Your task to perform on an android device: turn off smart reply in the gmail app Image 0: 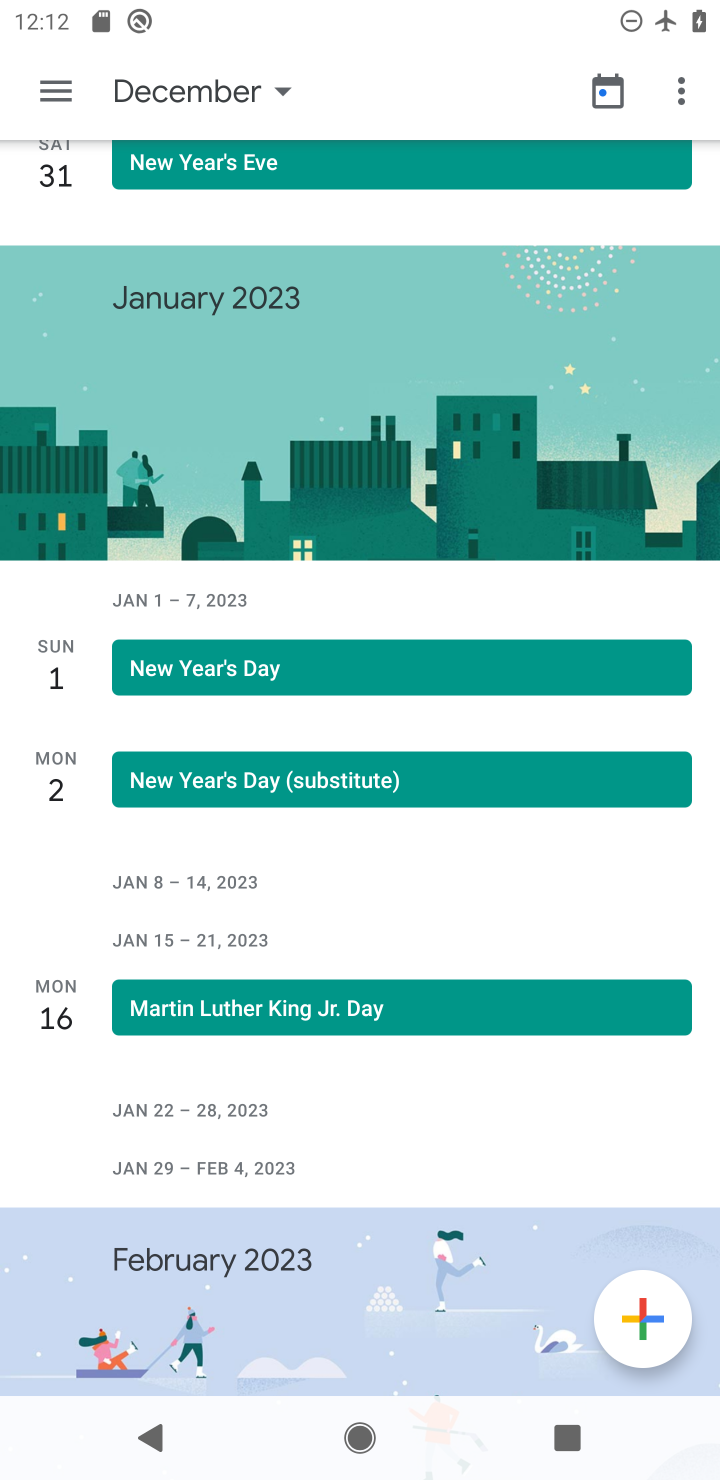
Step 0: press home button
Your task to perform on an android device: turn off smart reply in the gmail app Image 1: 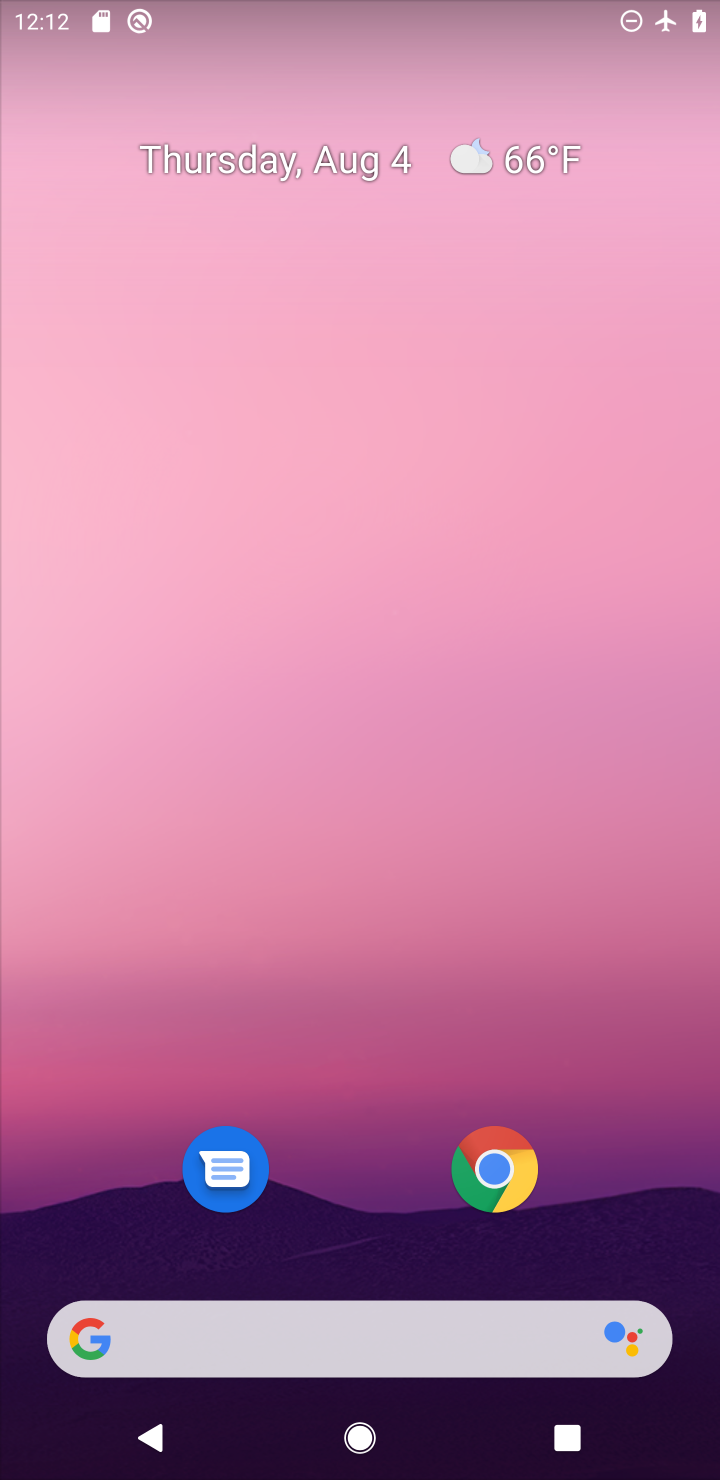
Step 1: drag from (377, 1245) to (308, 19)
Your task to perform on an android device: turn off smart reply in the gmail app Image 2: 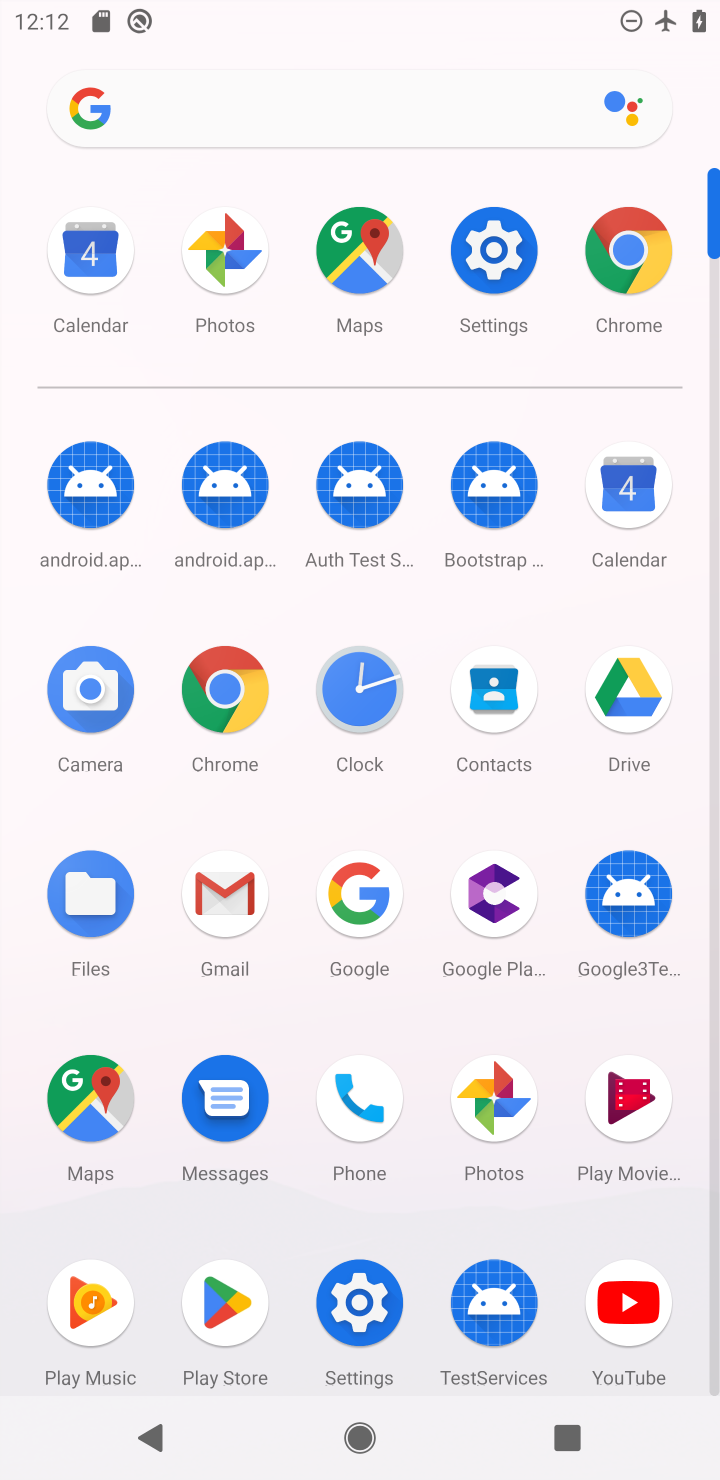
Step 2: click (222, 912)
Your task to perform on an android device: turn off smart reply in the gmail app Image 3: 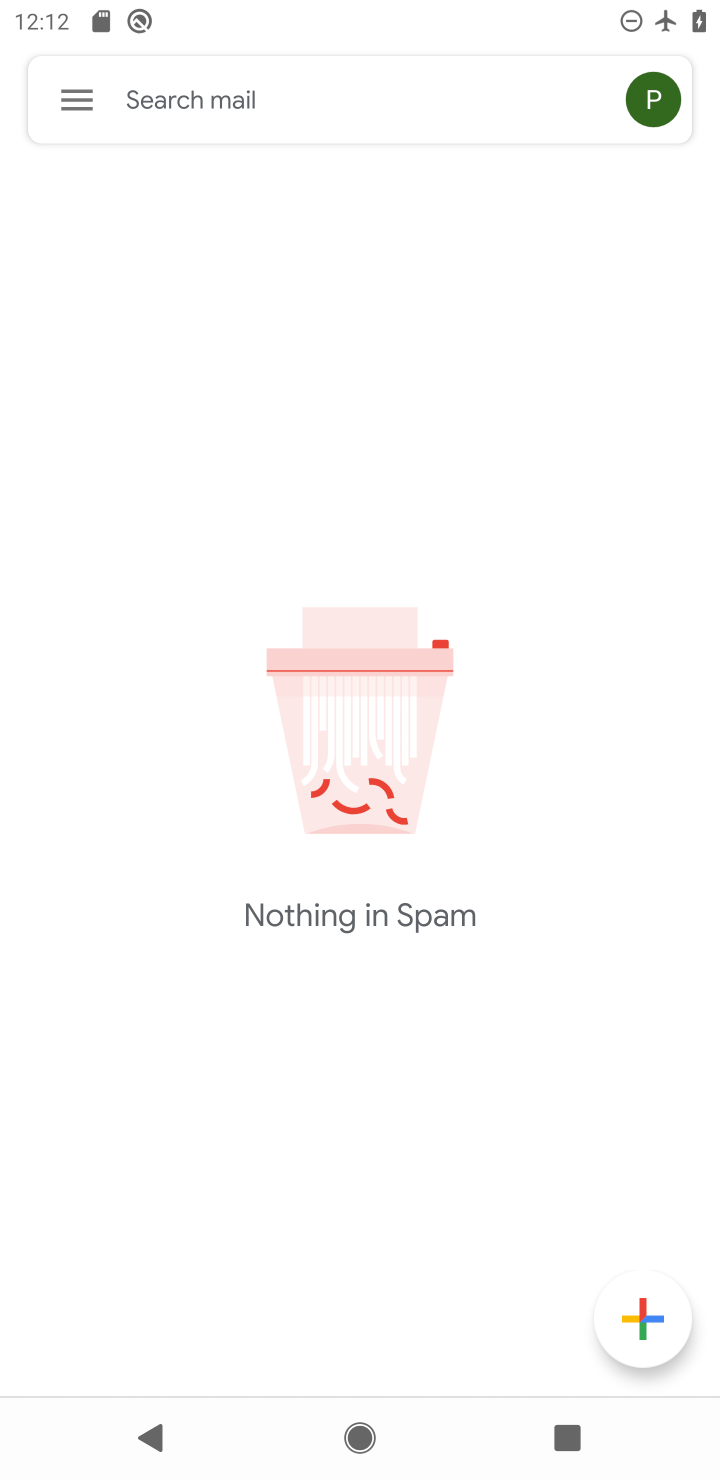
Step 3: click (86, 97)
Your task to perform on an android device: turn off smart reply in the gmail app Image 4: 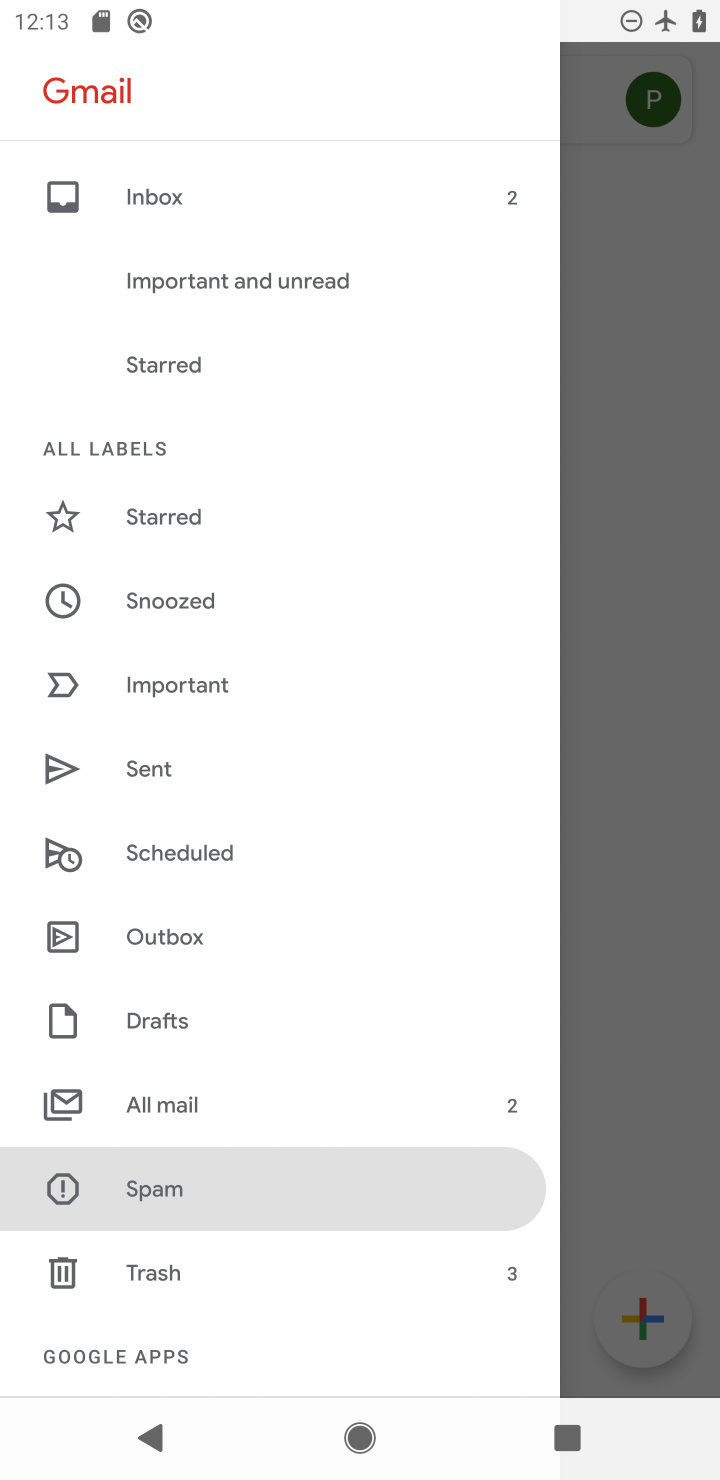
Step 4: drag from (261, 1086) to (263, 453)
Your task to perform on an android device: turn off smart reply in the gmail app Image 5: 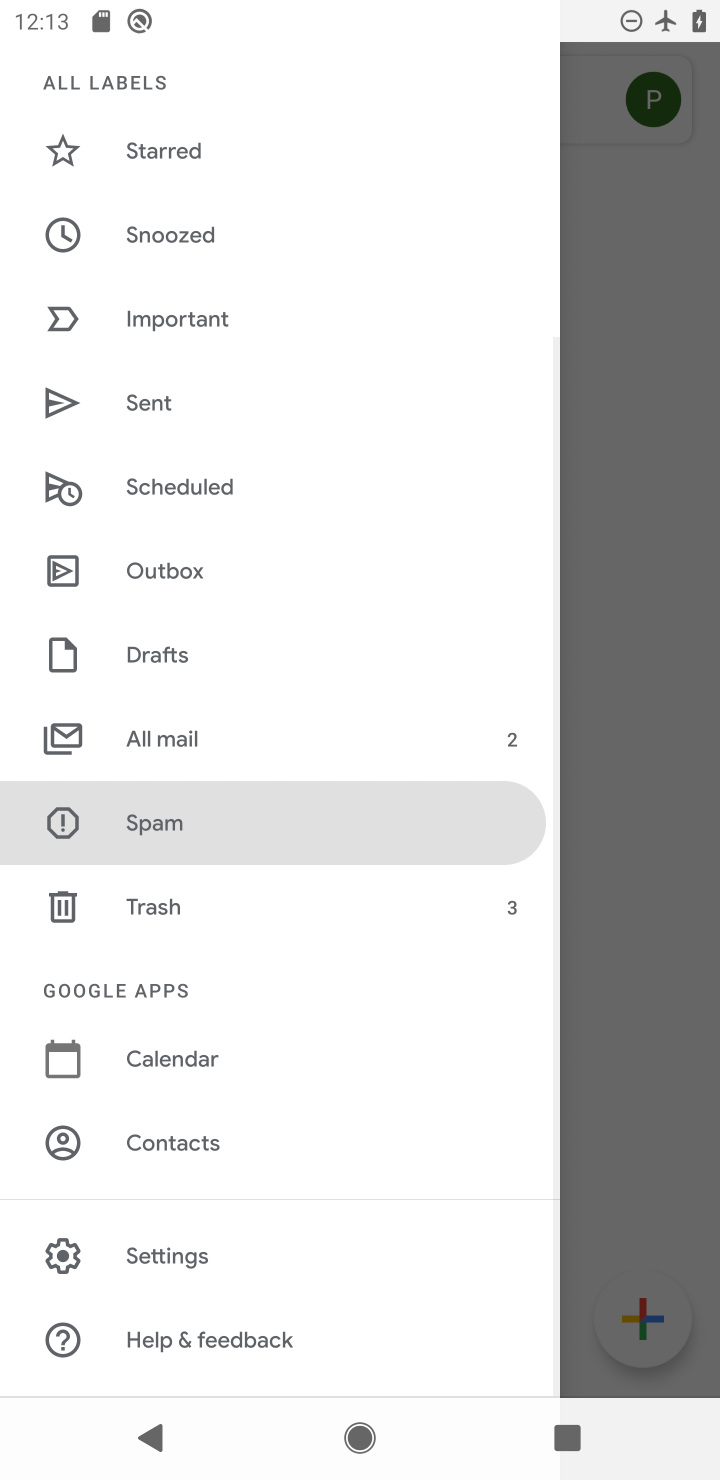
Step 5: click (156, 1259)
Your task to perform on an android device: turn off smart reply in the gmail app Image 6: 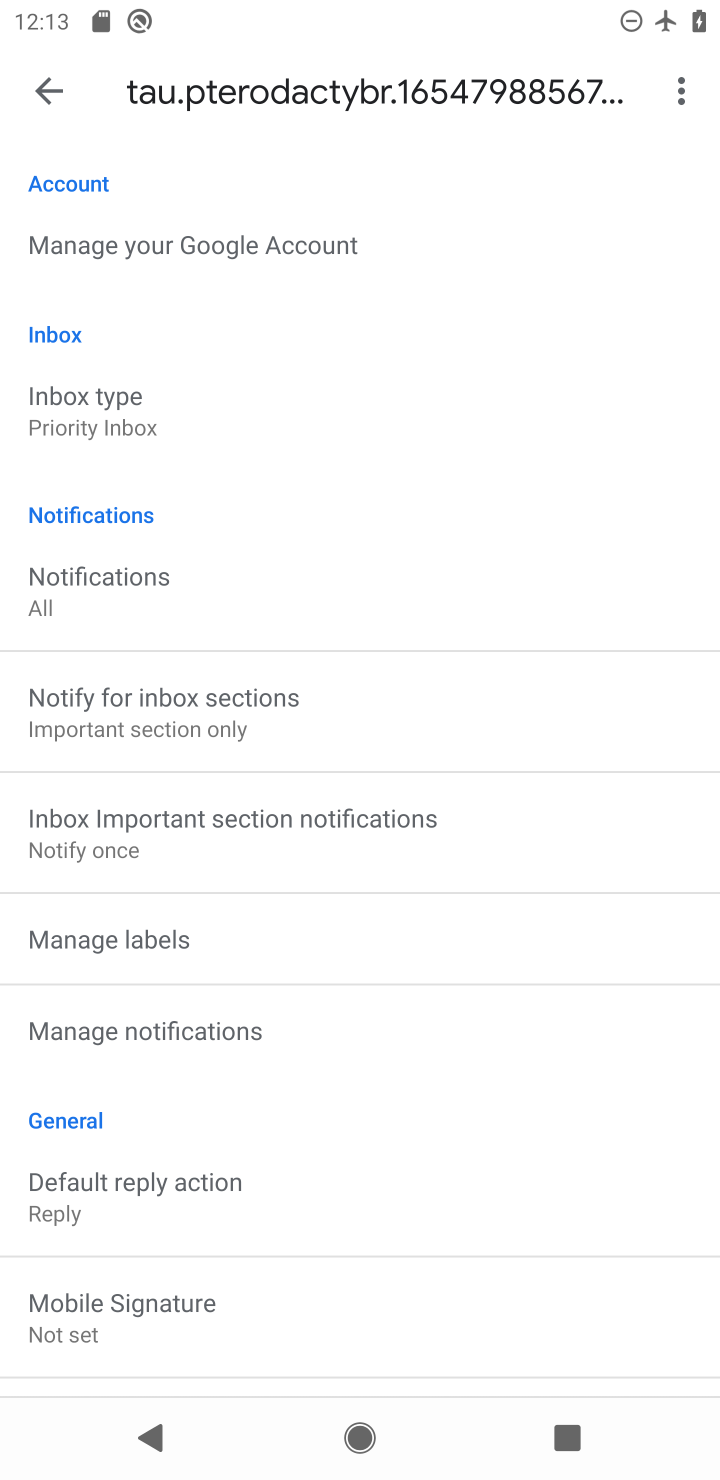
Step 6: drag from (259, 1178) to (200, 407)
Your task to perform on an android device: turn off smart reply in the gmail app Image 7: 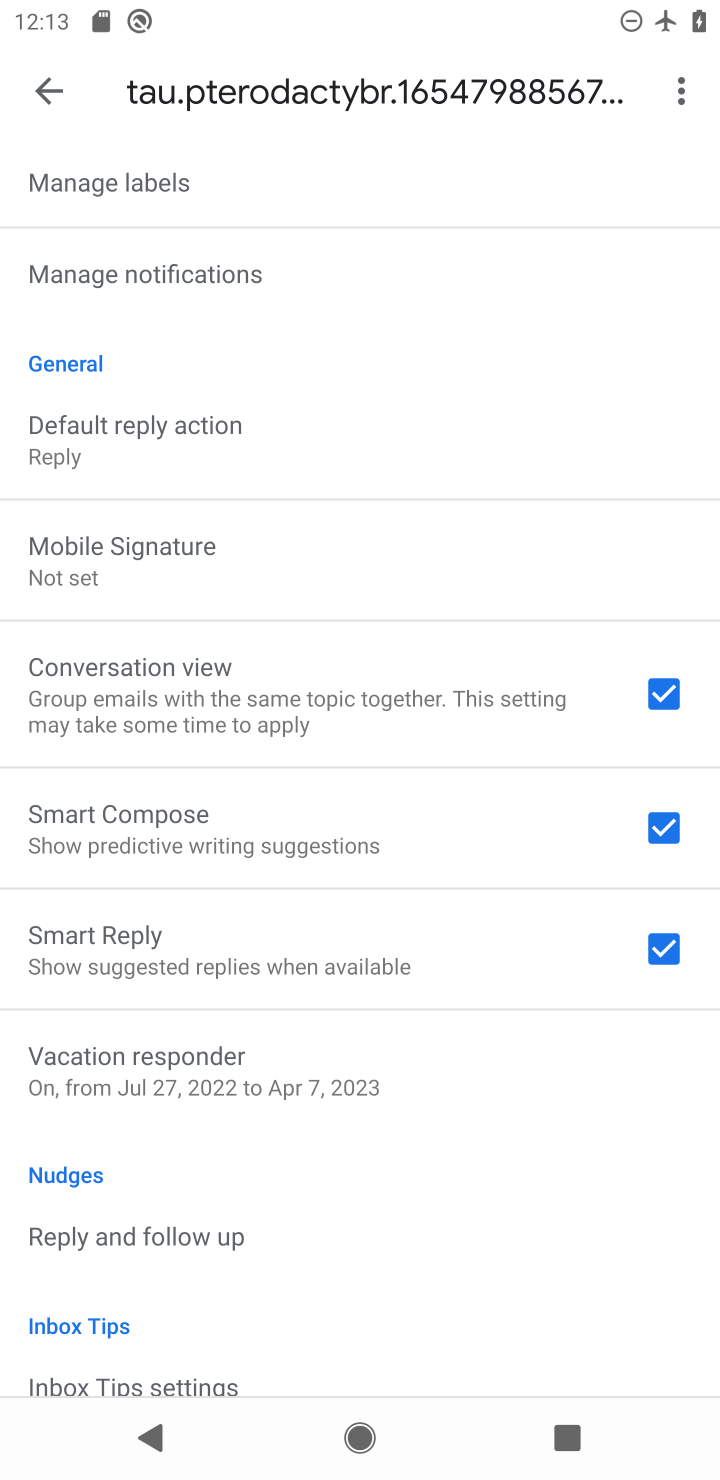
Step 7: click (657, 951)
Your task to perform on an android device: turn off smart reply in the gmail app Image 8: 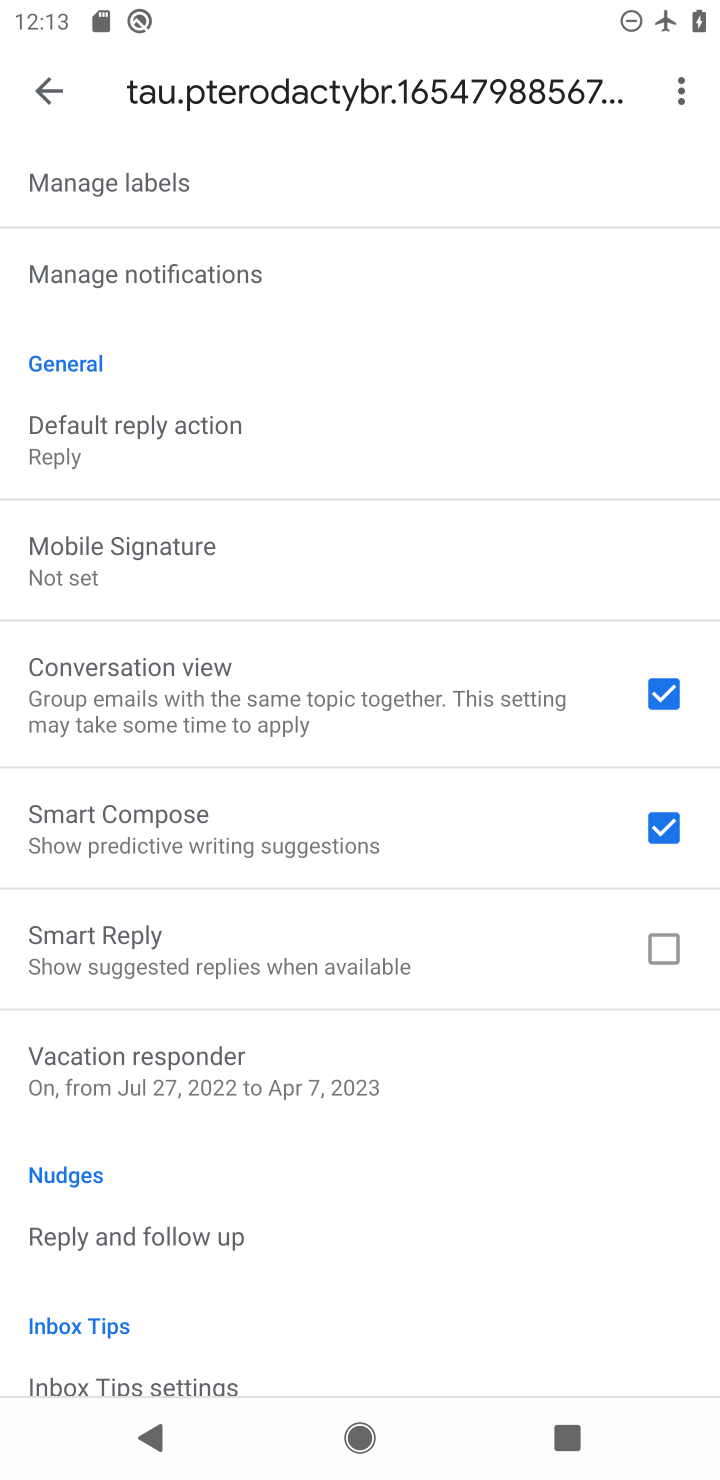
Step 8: task complete